Your task to perform on an android device: see tabs open on other devices in the chrome app Image 0: 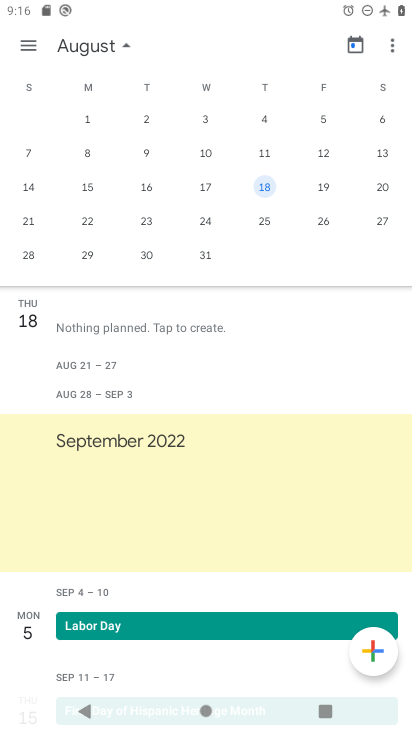
Step 0: press home button
Your task to perform on an android device: see tabs open on other devices in the chrome app Image 1: 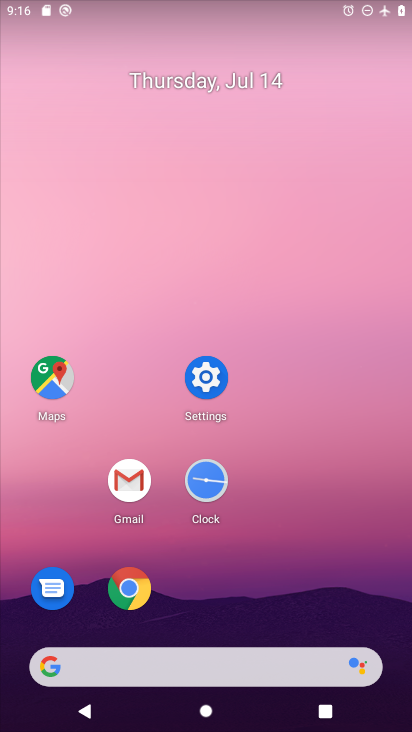
Step 1: click (127, 585)
Your task to perform on an android device: see tabs open on other devices in the chrome app Image 2: 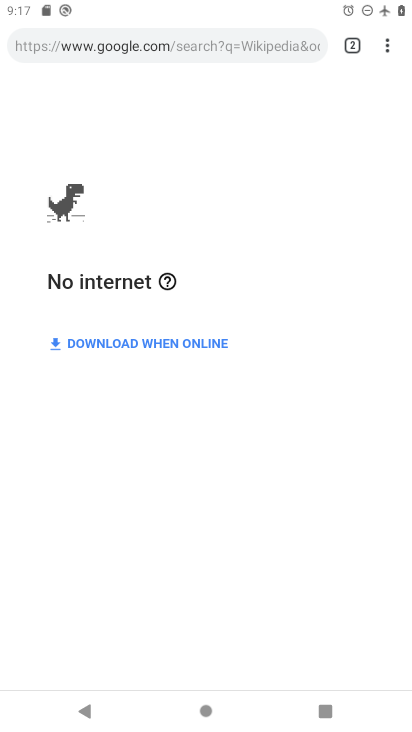
Step 2: task complete